Your task to perform on an android device: set the stopwatch Image 0: 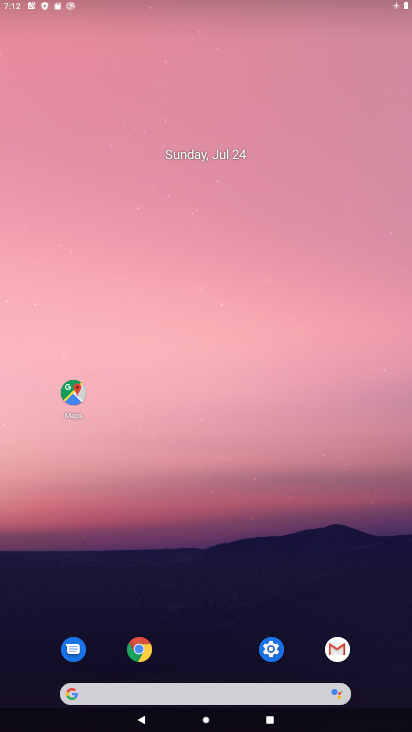
Step 0: click (275, 648)
Your task to perform on an android device: set the stopwatch Image 1: 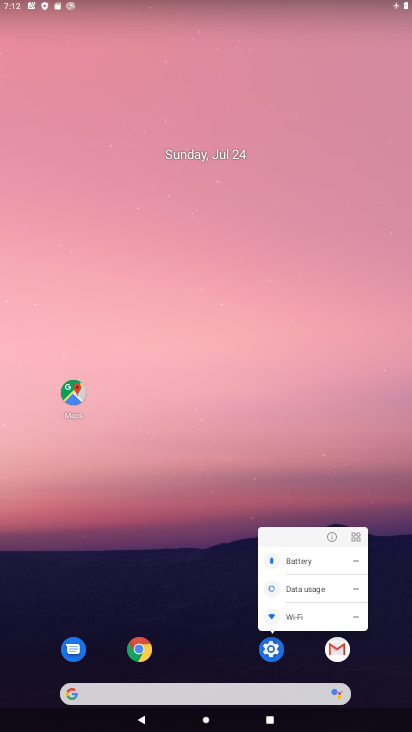
Step 1: drag from (164, 721) to (212, 301)
Your task to perform on an android device: set the stopwatch Image 2: 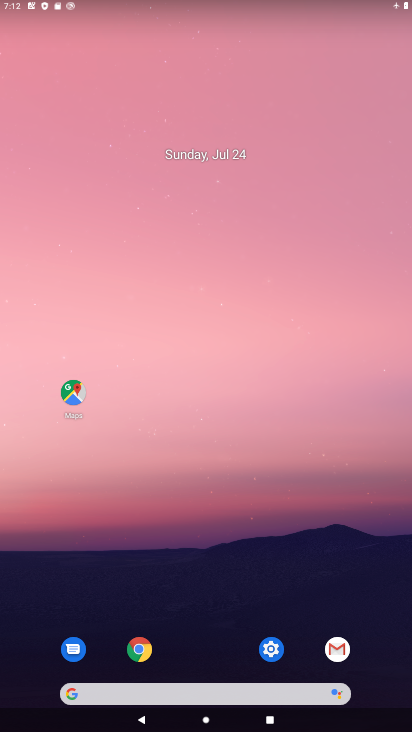
Step 2: drag from (255, 708) to (258, 168)
Your task to perform on an android device: set the stopwatch Image 3: 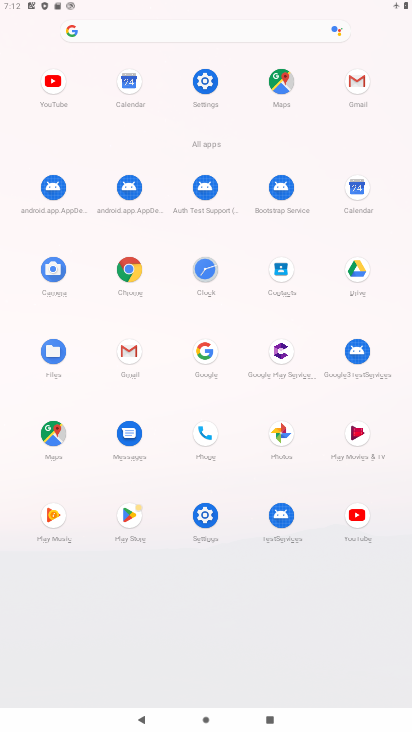
Step 3: click (206, 281)
Your task to perform on an android device: set the stopwatch Image 4: 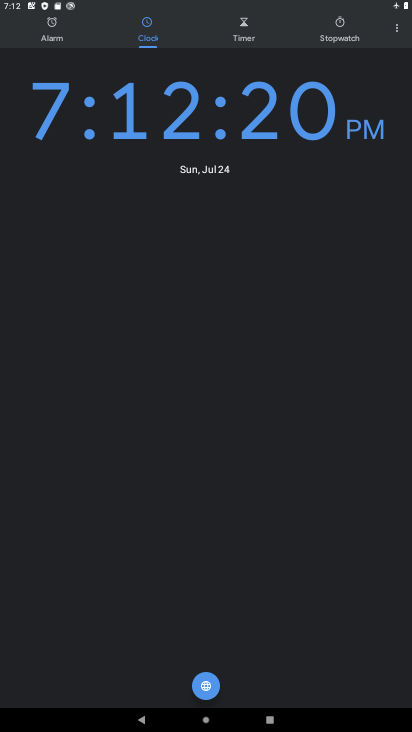
Step 4: click (342, 34)
Your task to perform on an android device: set the stopwatch Image 5: 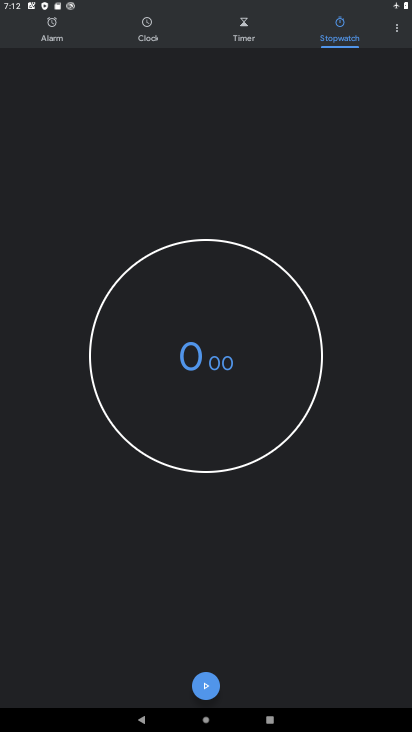
Step 5: click (210, 705)
Your task to perform on an android device: set the stopwatch Image 6: 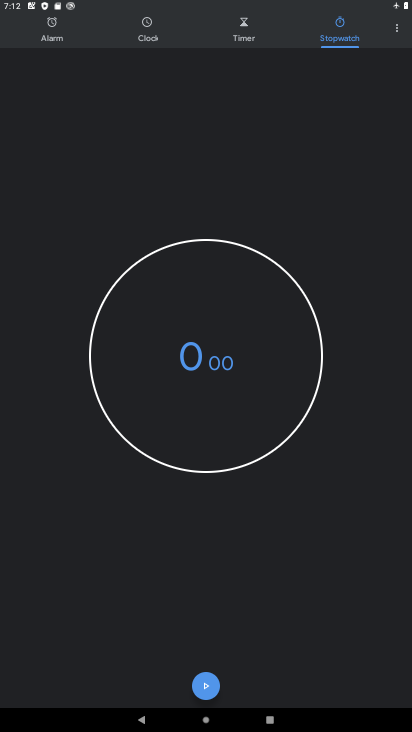
Step 6: click (212, 685)
Your task to perform on an android device: set the stopwatch Image 7: 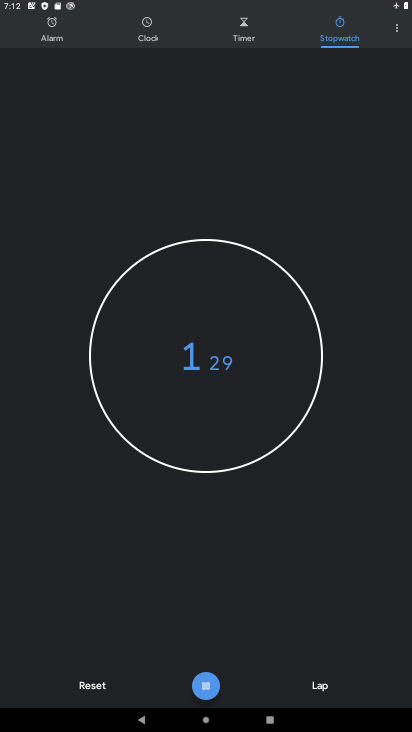
Step 7: click (212, 685)
Your task to perform on an android device: set the stopwatch Image 8: 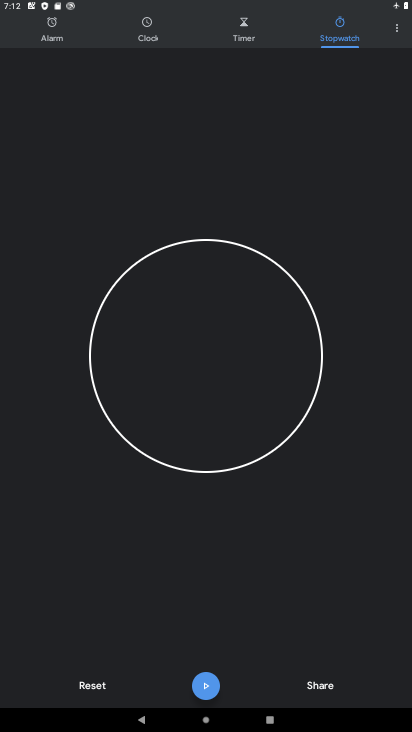
Step 8: task complete